Your task to perform on an android device: turn off smart reply in the gmail app Image 0: 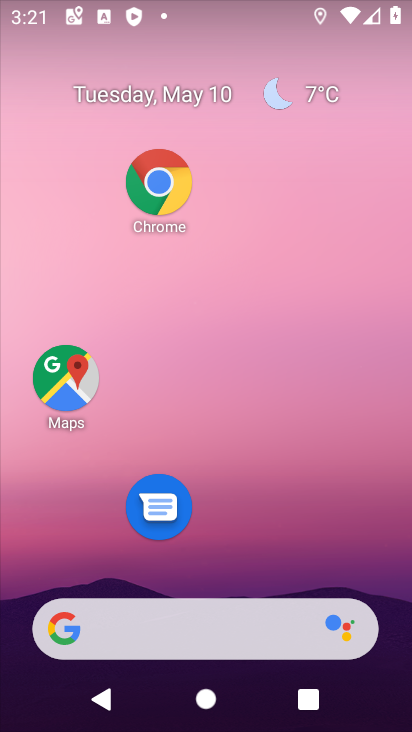
Step 0: press home button
Your task to perform on an android device: turn off smart reply in the gmail app Image 1: 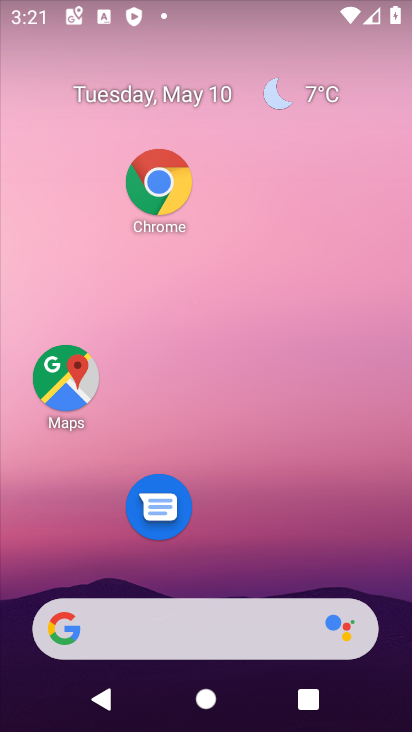
Step 1: drag from (266, 572) to (238, 259)
Your task to perform on an android device: turn off smart reply in the gmail app Image 2: 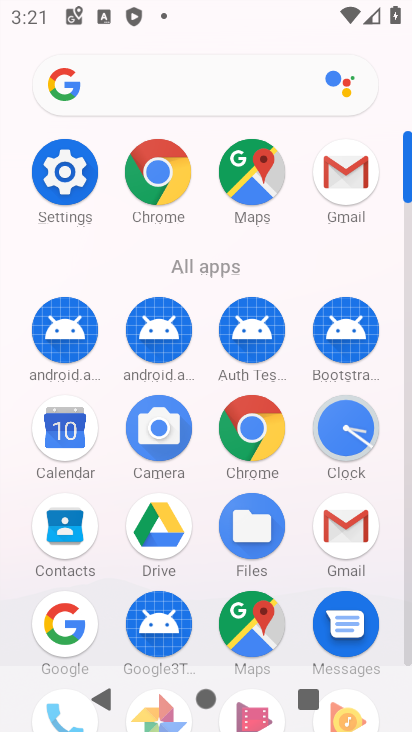
Step 2: click (59, 193)
Your task to perform on an android device: turn off smart reply in the gmail app Image 3: 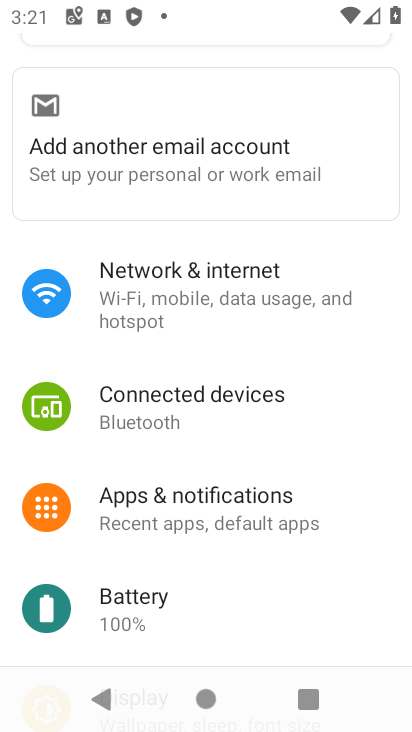
Step 3: drag from (181, 561) to (109, 211)
Your task to perform on an android device: turn off smart reply in the gmail app Image 4: 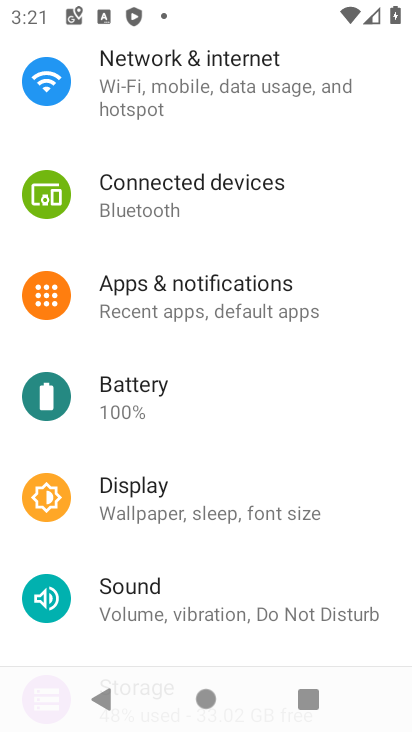
Step 4: drag from (223, 535) to (140, 323)
Your task to perform on an android device: turn off smart reply in the gmail app Image 5: 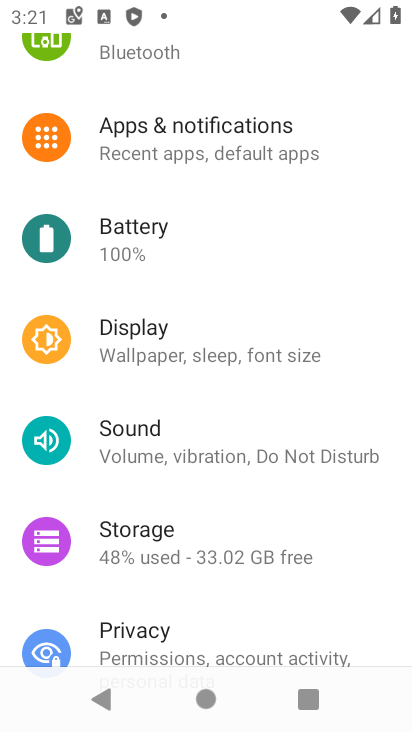
Step 5: press home button
Your task to perform on an android device: turn off smart reply in the gmail app Image 6: 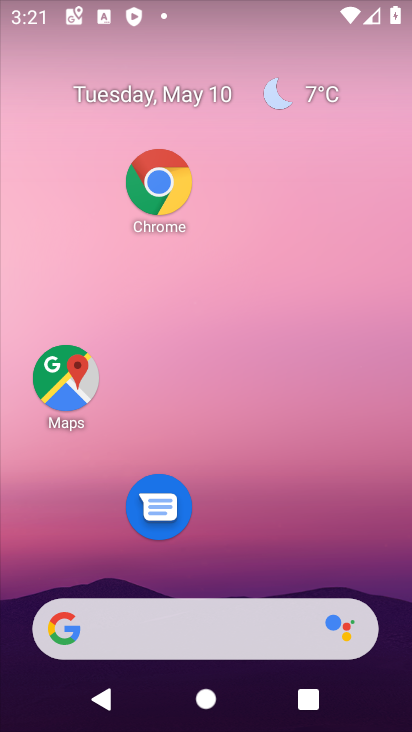
Step 6: drag from (331, 541) to (249, 65)
Your task to perform on an android device: turn off smart reply in the gmail app Image 7: 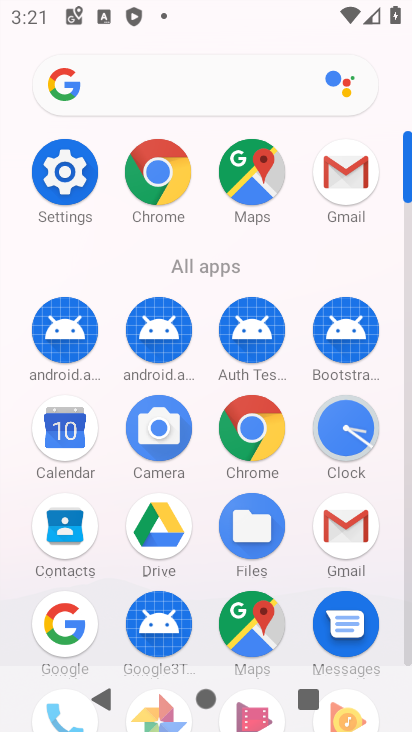
Step 7: click (70, 189)
Your task to perform on an android device: turn off smart reply in the gmail app Image 8: 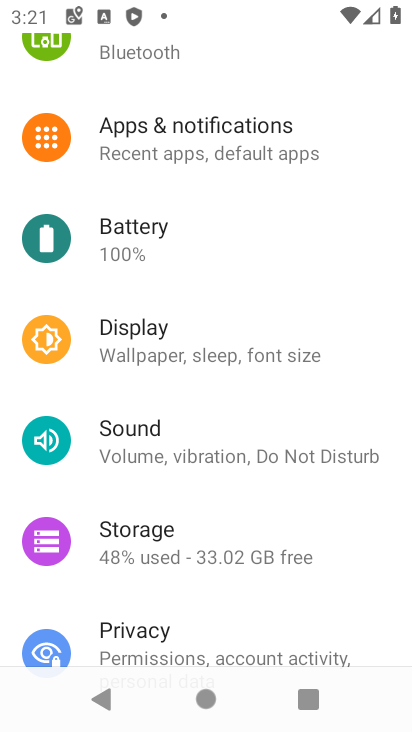
Step 8: press home button
Your task to perform on an android device: turn off smart reply in the gmail app Image 9: 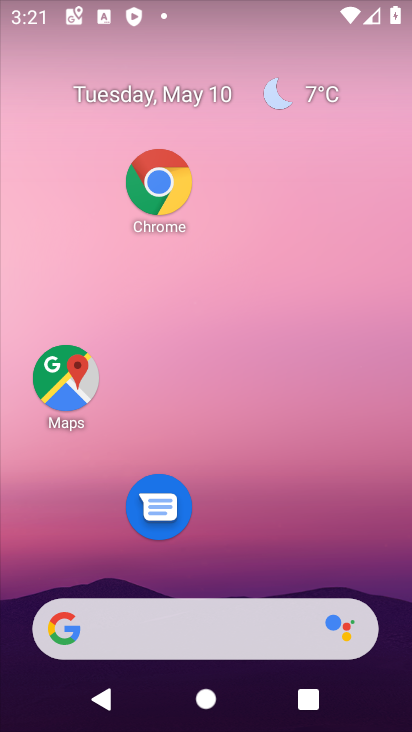
Step 9: drag from (287, 534) to (265, 214)
Your task to perform on an android device: turn off smart reply in the gmail app Image 10: 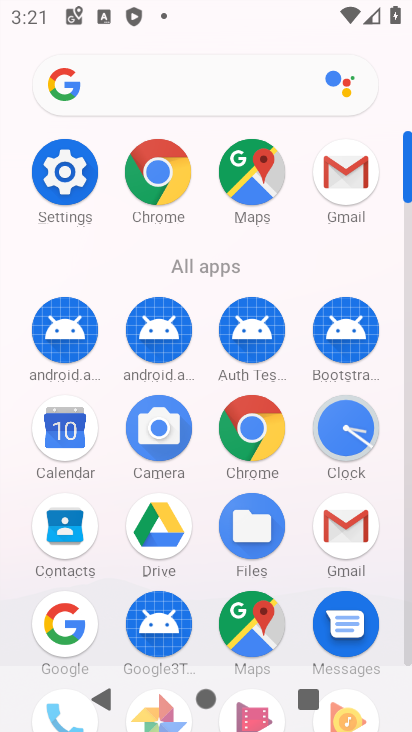
Step 10: click (365, 166)
Your task to perform on an android device: turn off smart reply in the gmail app Image 11: 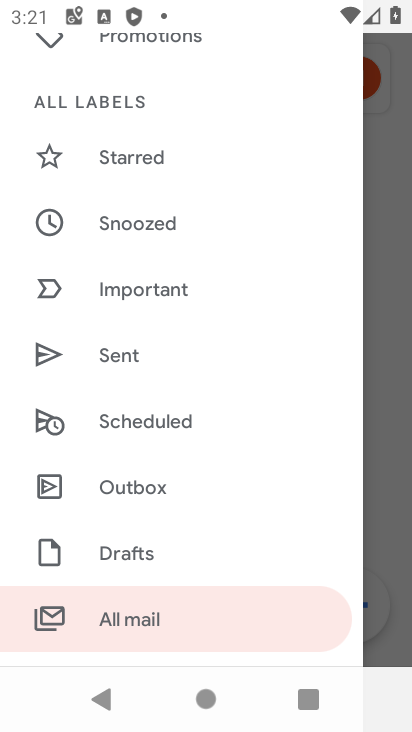
Step 11: drag from (182, 560) to (200, 77)
Your task to perform on an android device: turn off smart reply in the gmail app Image 12: 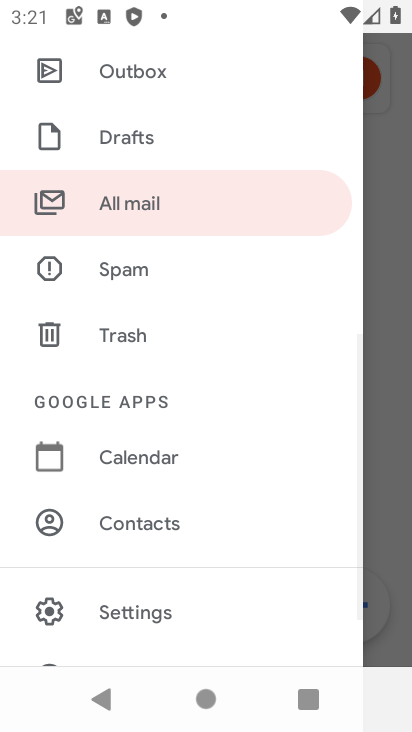
Step 12: click (203, 567)
Your task to perform on an android device: turn off smart reply in the gmail app Image 13: 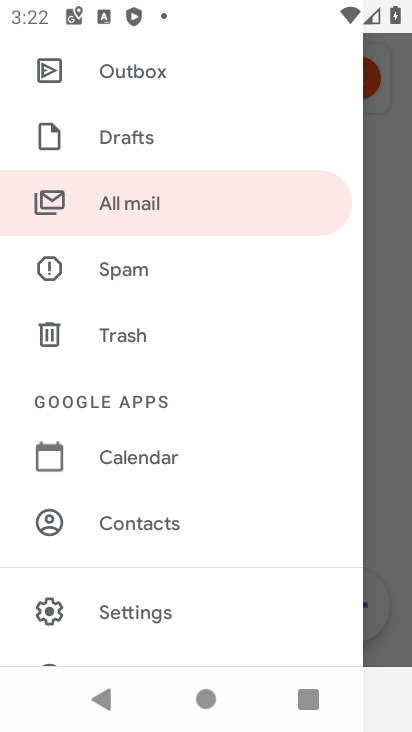
Step 13: click (164, 621)
Your task to perform on an android device: turn off smart reply in the gmail app Image 14: 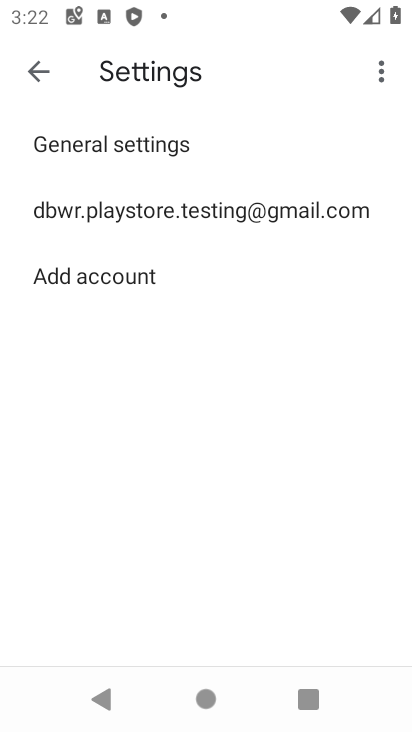
Step 14: click (173, 213)
Your task to perform on an android device: turn off smart reply in the gmail app Image 15: 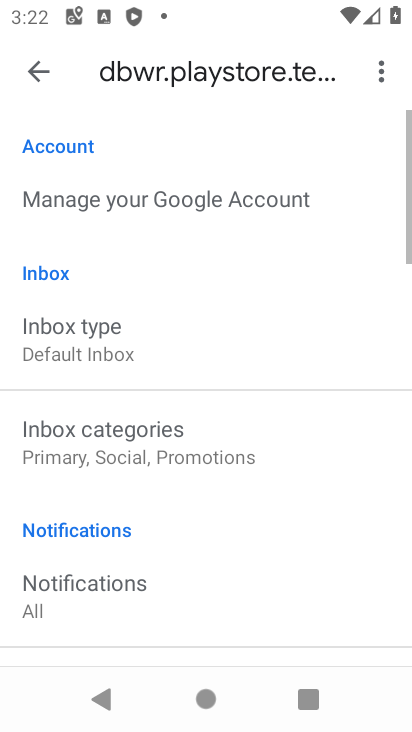
Step 15: drag from (181, 496) to (144, 328)
Your task to perform on an android device: turn off smart reply in the gmail app Image 16: 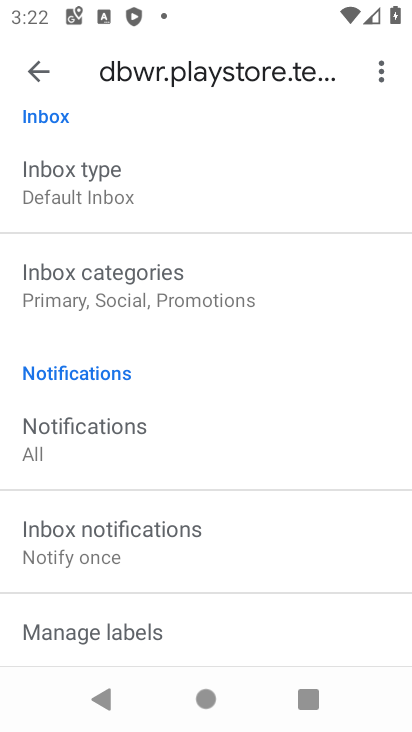
Step 16: drag from (190, 570) to (146, 317)
Your task to perform on an android device: turn off smart reply in the gmail app Image 17: 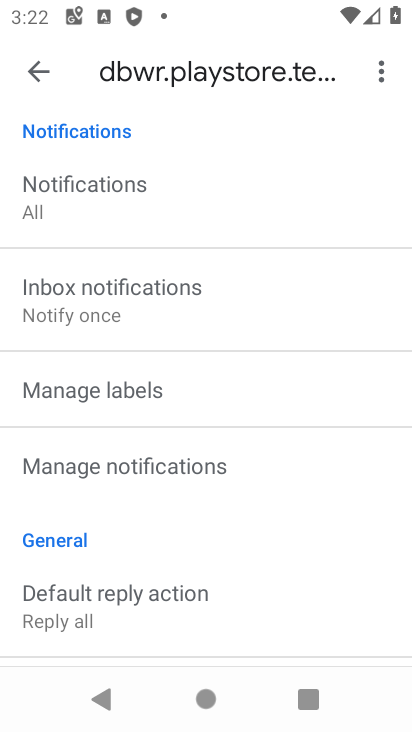
Step 17: click (145, 450)
Your task to perform on an android device: turn off smart reply in the gmail app Image 18: 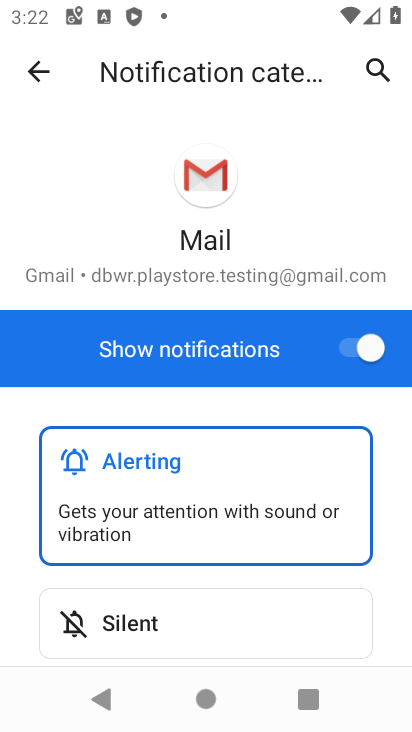
Step 18: click (47, 64)
Your task to perform on an android device: turn off smart reply in the gmail app Image 19: 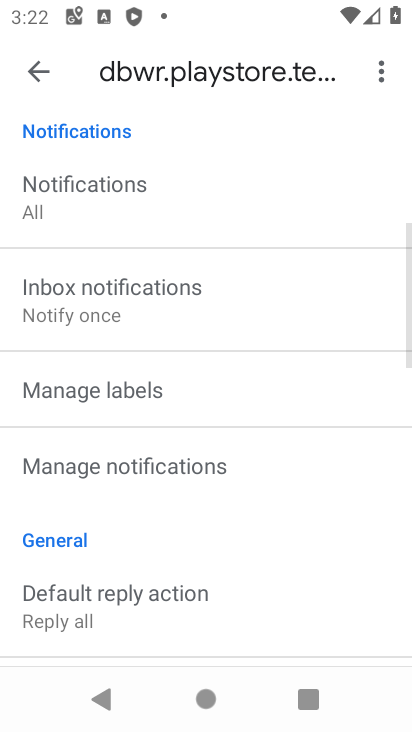
Step 19: drag from (108, 591) to (55, 248)
Your task to perform on an android device: turn off smart reply in the gmail app Image 20: 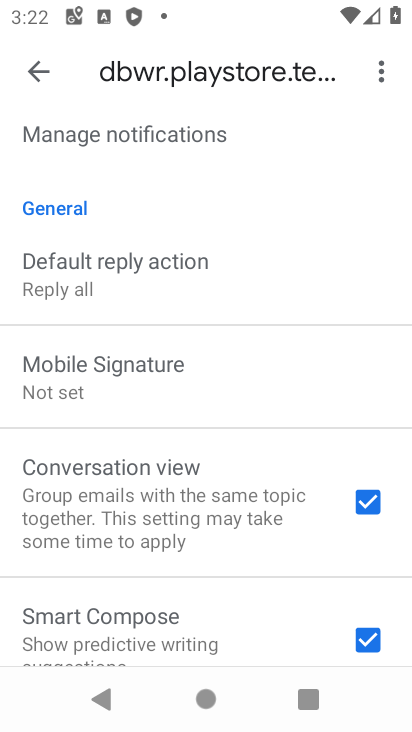
Step 20: drag from (88, 469) to (55, 256)
Your task to perform on an android device: turn off smart reply in the gmail app Image 21: 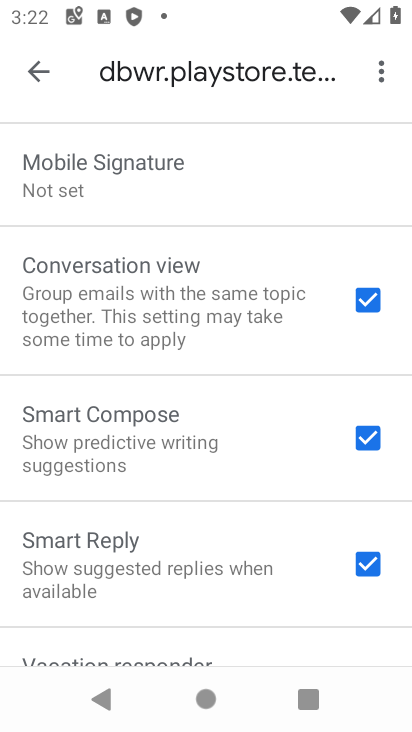
Step 21: click (336, 561)
Your task to perform on an android device: turn off smart reply in the gmail app Image 22: 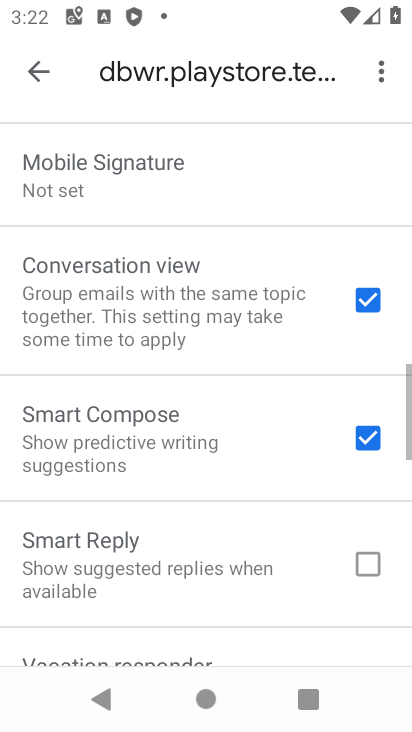
Step 22: task complete